Your task to perform on an android device: toggle airplane mode Image 0: 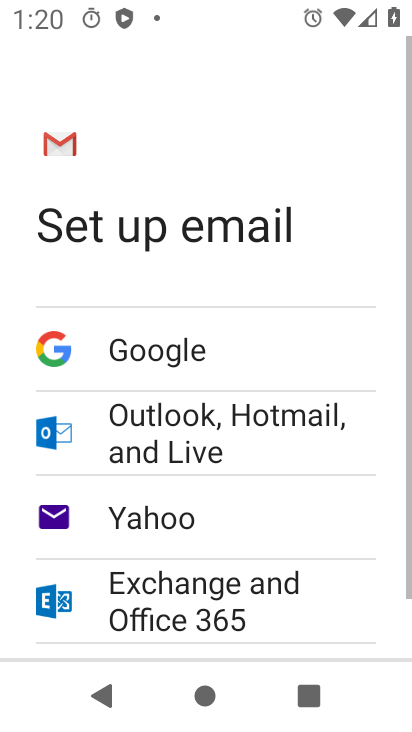
Step 0: press home button
Your task to perform on an android device: toggle airplane mode Image 1: 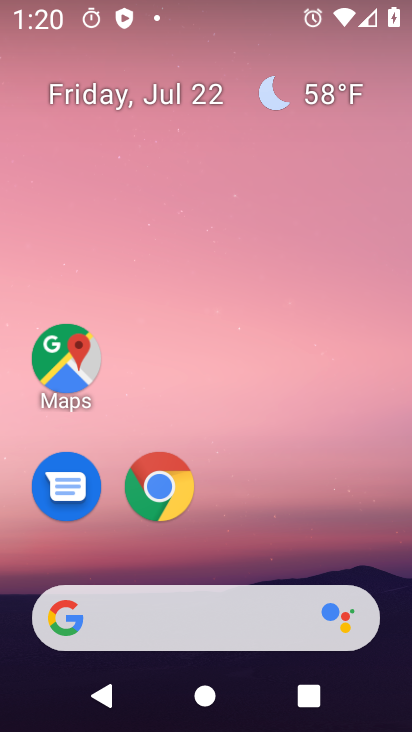
Step 1: drag from (370, 547) to (371, 106)
Your task to perform on an android device: toggle airplane mode Image 2: 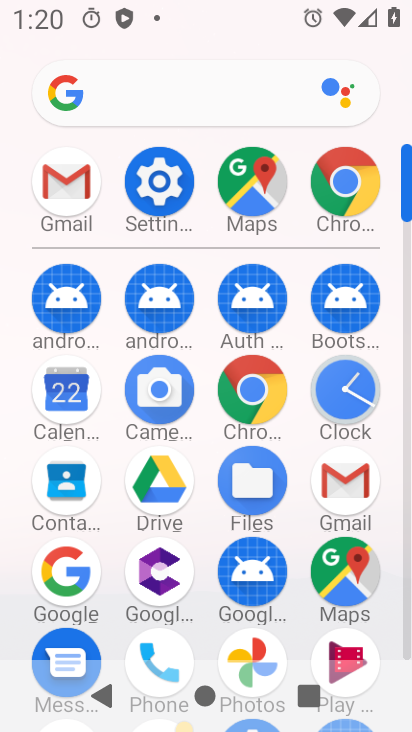
Step 2: click (155, 187)
Your task to perform on an android device: toggle airplane mode Image 3: 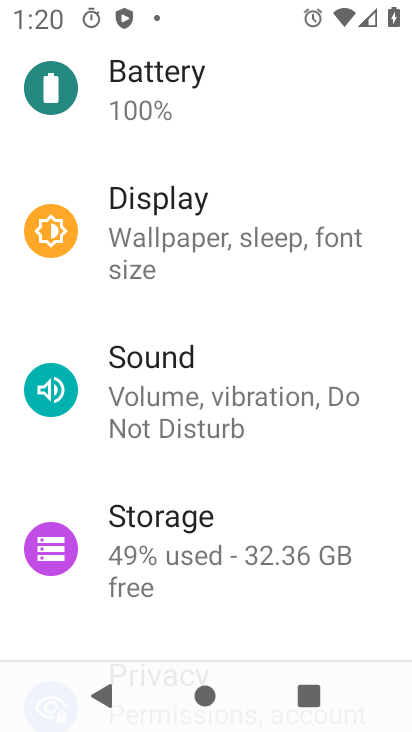
Step 3: drag from (341, 264) to (348, 320)
Your task to perform on an android device: toggle airplane mode Image 4: 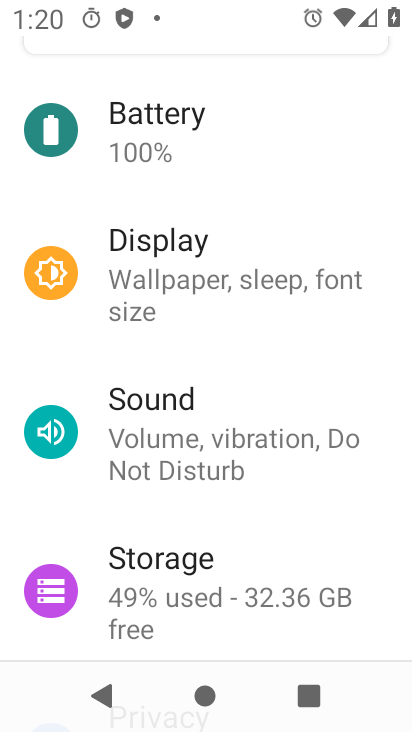
Step 4: drag from (360, 240) to (360, 350)
Your task to perform on an android device: toggle airplane mode Image 5: 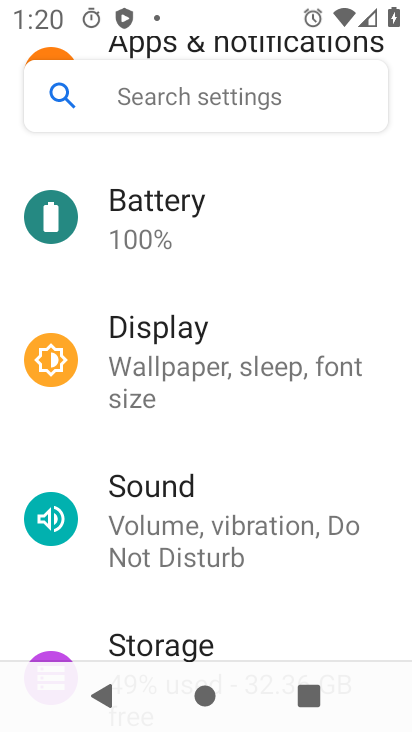
Step 5: drag from (364, 243) to (364, 322)
Your task to perform on an android device: toggle airplane mode Image 6: 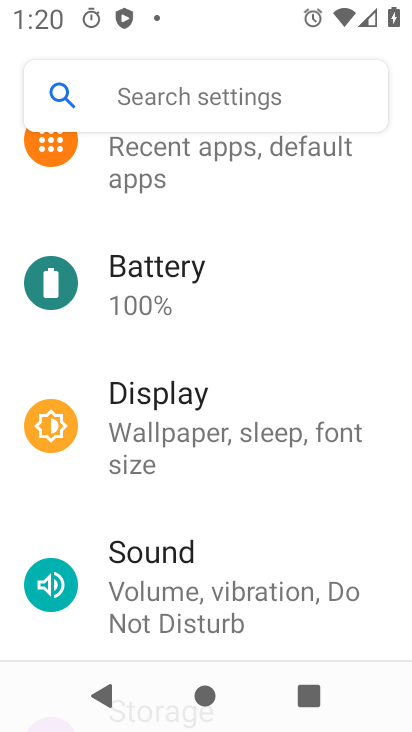
Step 6: drag from (354, 238) to (355, 355)
Your task to perform on an android device: toggle airplane mode Image 7: 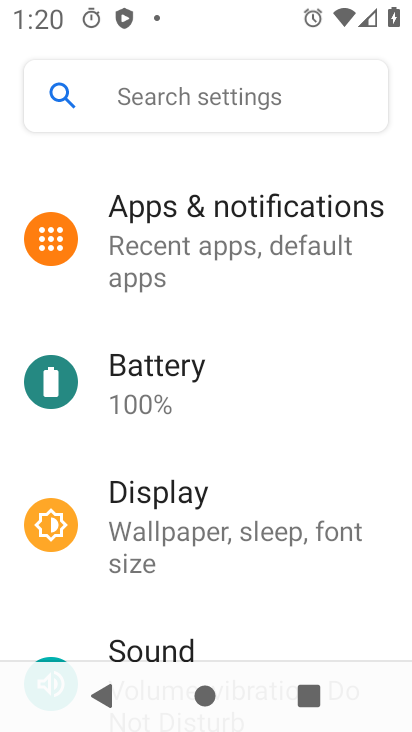
Step 7: drag from (353, 235) to (358, 375)
Your task to perform on an android device: toggle airplane mode Image 8: 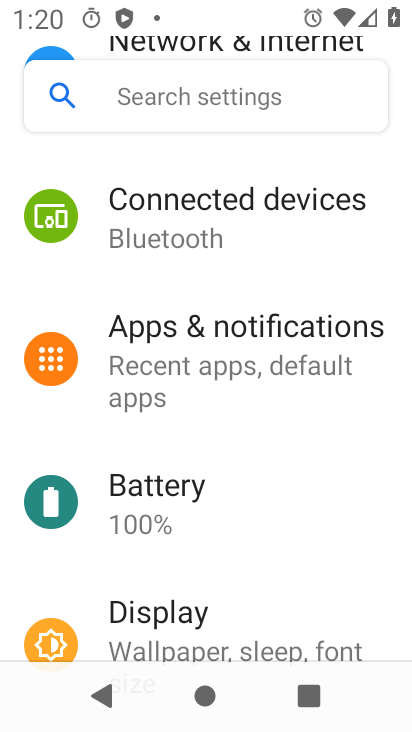
Step 8: drag from (370, 175) to (372, 368)
Your task to perform on an android device: toggle airplane mode Image 9: 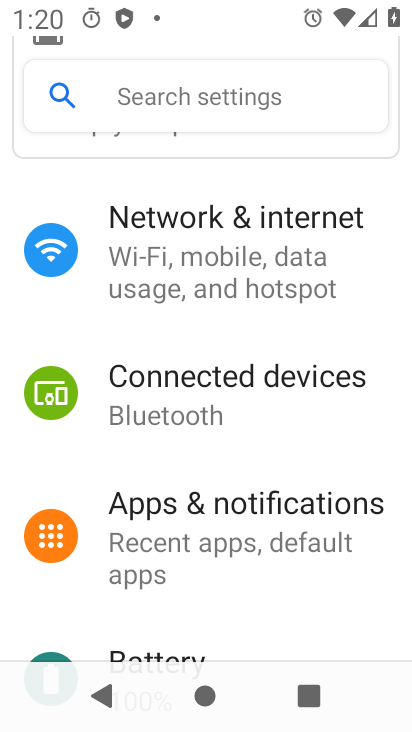
Step 9: click (309, 244)
Your task to perform on an android device: toggle airplane mode Image 10: 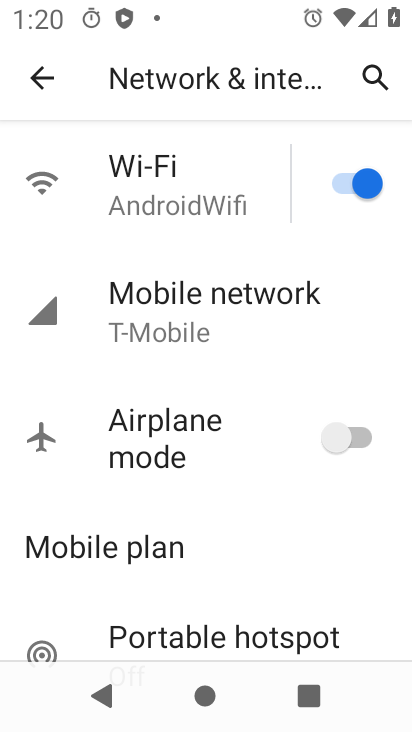
Step 10: click (336, 445)
Your task to perform on an android device: toggle airplane mode Image 11: 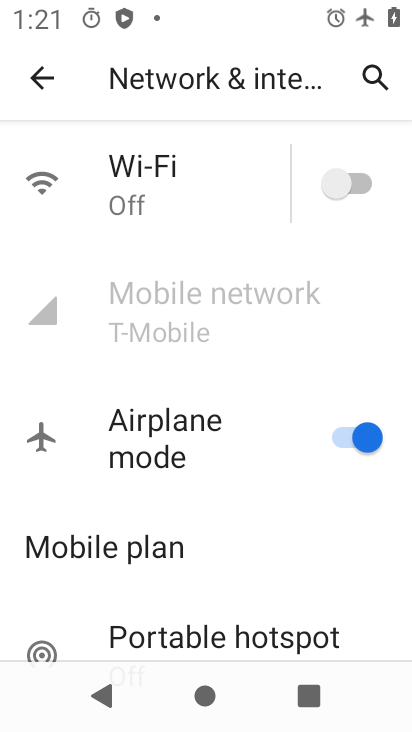
Step 11: task complete